Your task to perform on an android device: move a message to another label in the gmail app Image 0: 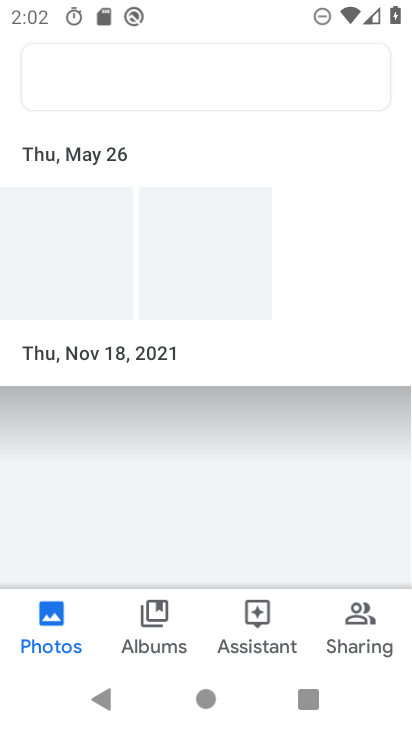
Step 0: press home button
Your task to perform on an android device: move a message to another label in the gmail app Image 1: 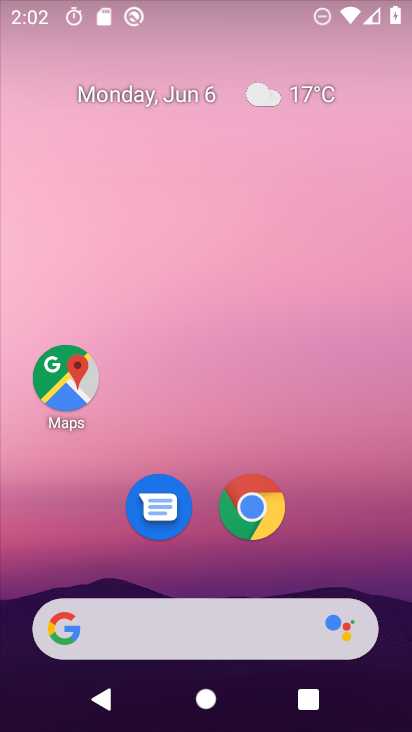
Step 1: drag from (274, 674) to (160, 152)
Your task to perform on an android device: move a message to another label in the gmail app Image 2: 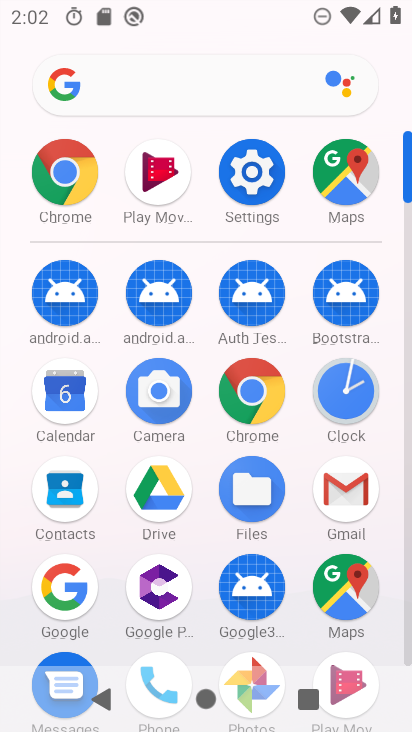
Step 2: click (332, 503)
Your task to perform on an android device: move a message to another label in the gmail app Image 3: 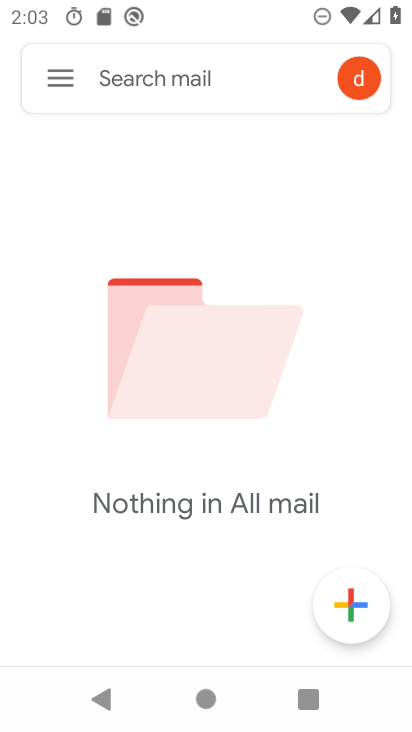
Step 3: click (58, 79)
Your task to perform on an android device: move a message to another label in the gmail app Image 4: 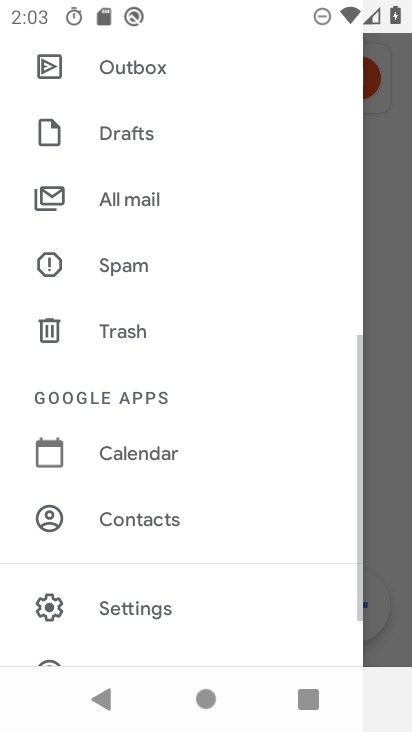
Step 4: click (151, 609)
Your task to perform on an android device: move a message to another label in the gmail app Image 5: 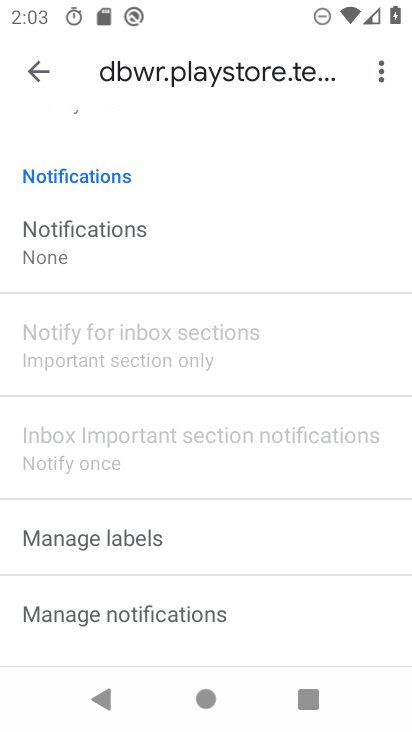
Step 5: click (161, 528)
Your task to perform on an android device: move a message to another label in the gmail app Image 6: 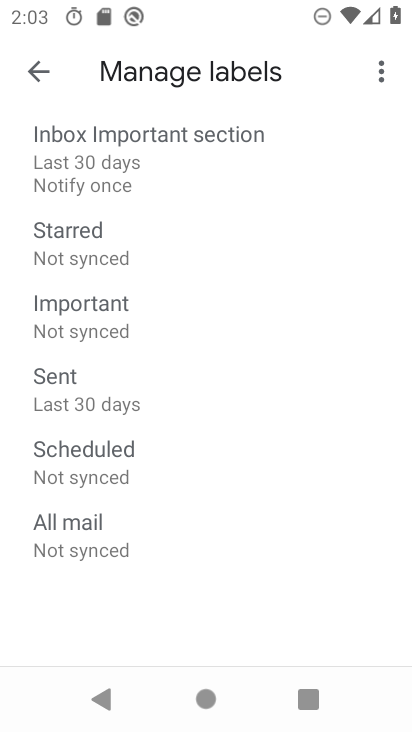
Step 6: click (110, 228)
Your task to perform on an android device: move a message to another label in the gmail app Image 7: 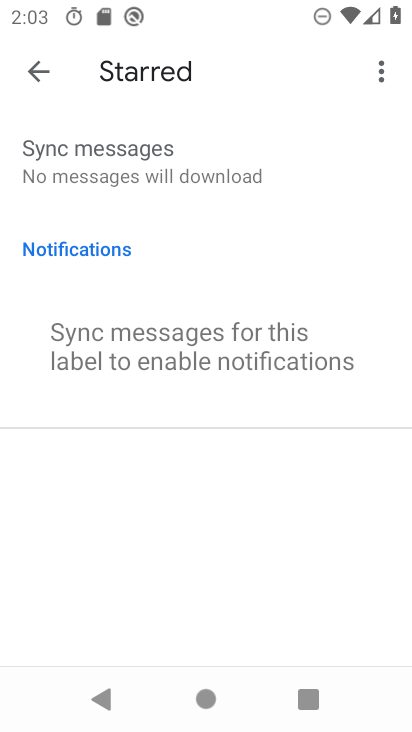
Step 7: task complete